Your task to perform on an android device: Open Google Image 0: 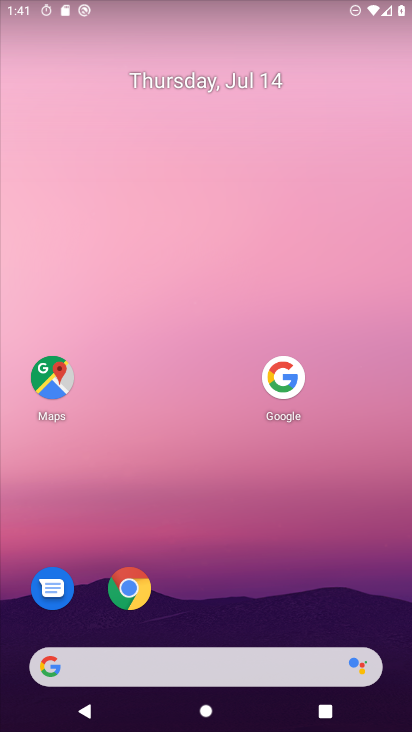
Step 0: click (272, 381)
Your task to perform on an android device: Open Google Image 1: 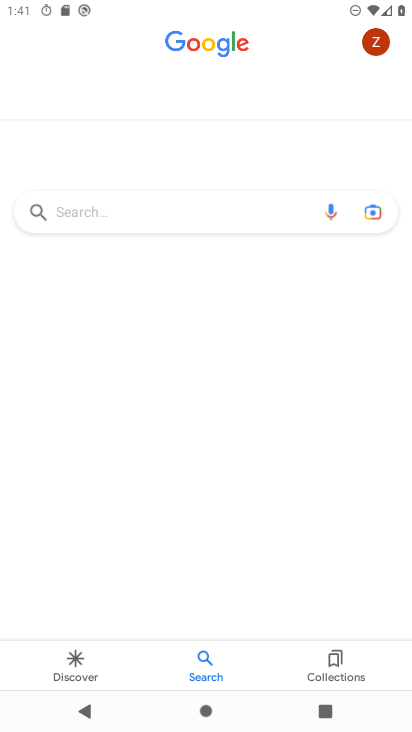
Step 1: task complete